Your task to perform on an android device: Go to privacy settings Image 0: 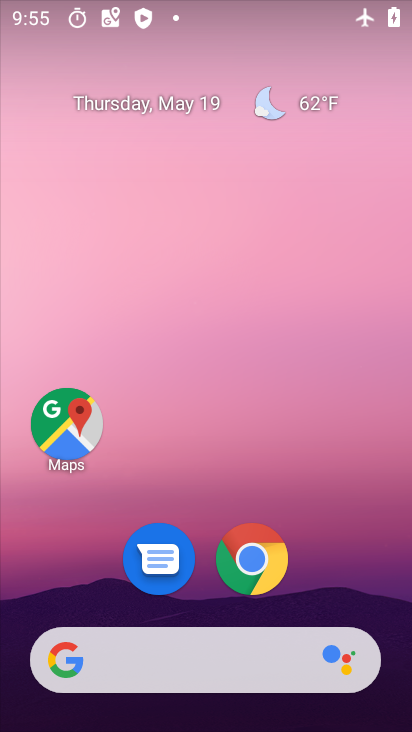
Step 0: drag from (374, 594) to (285, 138)
Your task to perform on an android device: Go to privacy settings Image 1: 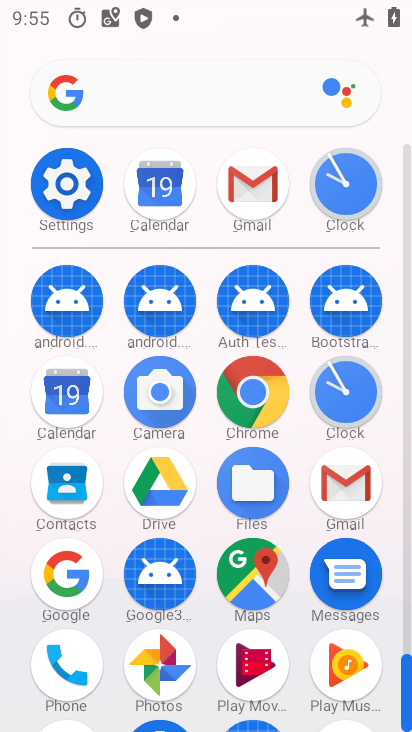
Step 1: click (76, 171)
Your task to perform on an android device: Go to privacy settings Image 2: 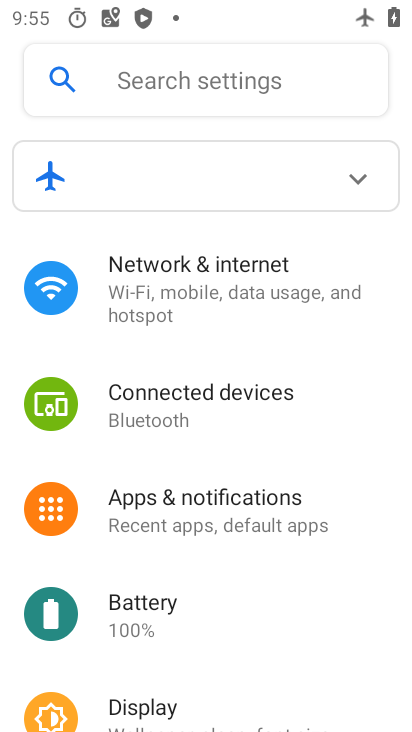
Step 2: drag from (294, 653) to (235, 204)
Your task to perform on an android device: Go to privacy settings Image 3: 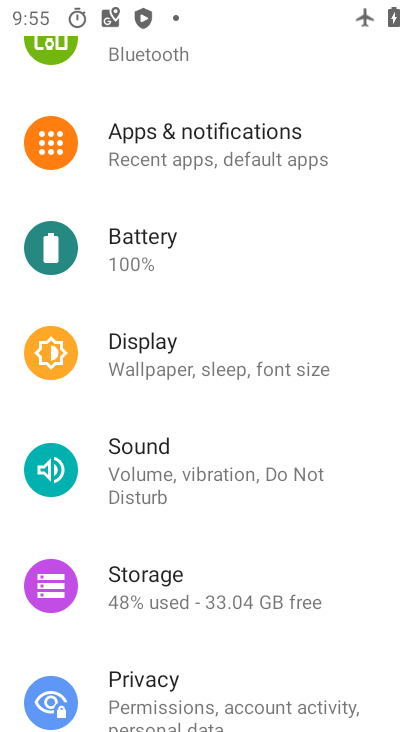
Step 3: drag from (283, 666) to (227, 300)
Your task to perform on an android device: Go to privacy settings Image 4: 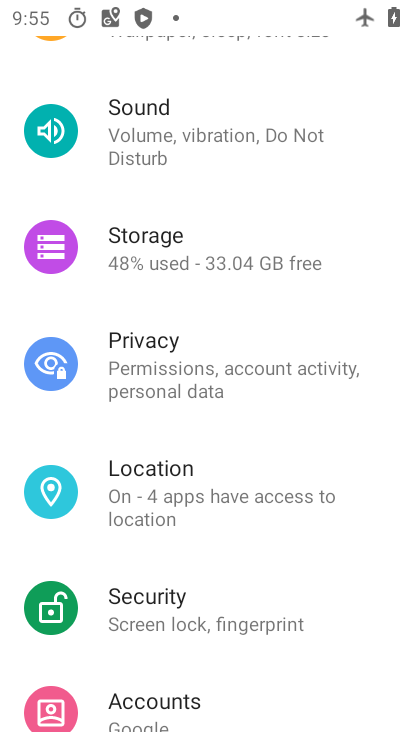
Step 4: click (180, 368)
Your task to perform on an android device: Go to privacy settings Image 5: 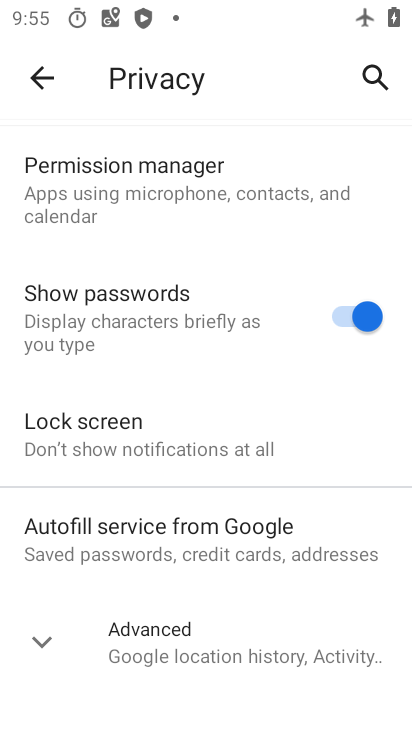
Step 5: task complete